Your task to perform on an android device: open wifi settings Image 0: 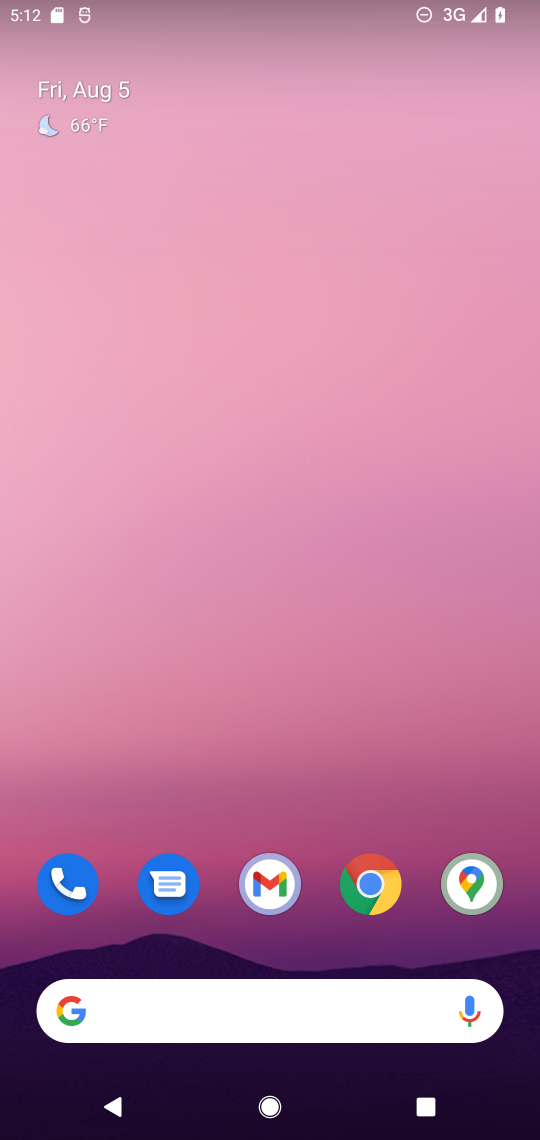
Step 0: drag from (412, 920) to (305, 30)
Your task to perform on an android device: open wifi settings Image 1: 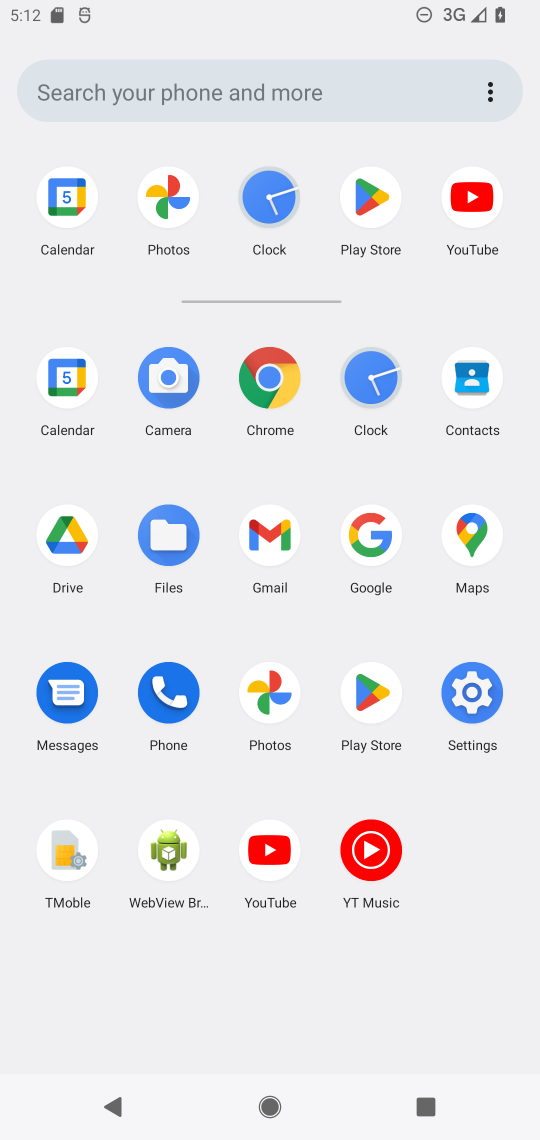
Step 1: click (488, 704)
Your task to perform on an android device: open wifi settings Image 2: 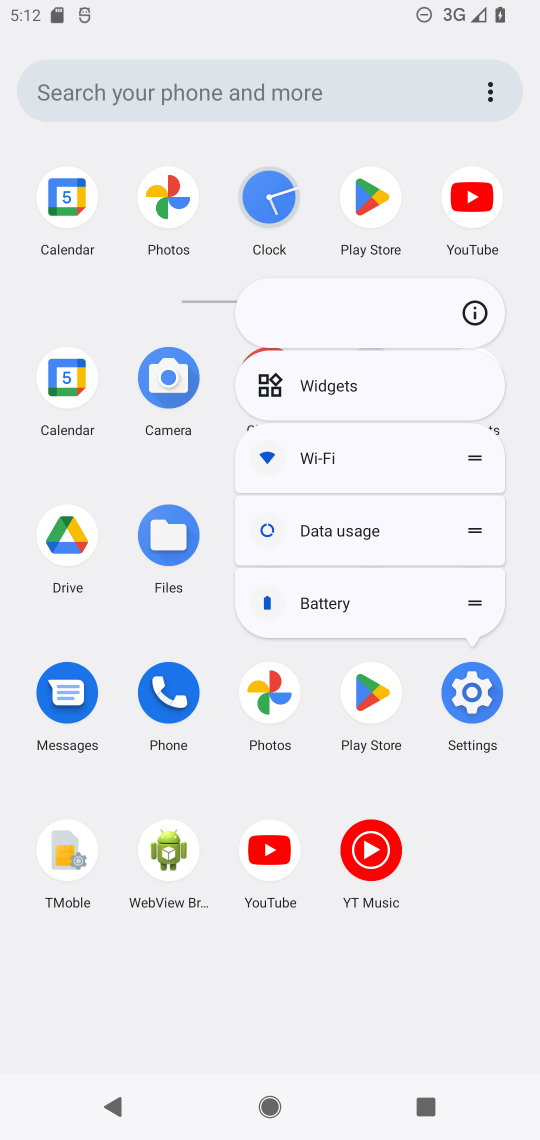
Step 2: click (488, 704)
Your task to perform on an android device: open wifi settings Image 3: 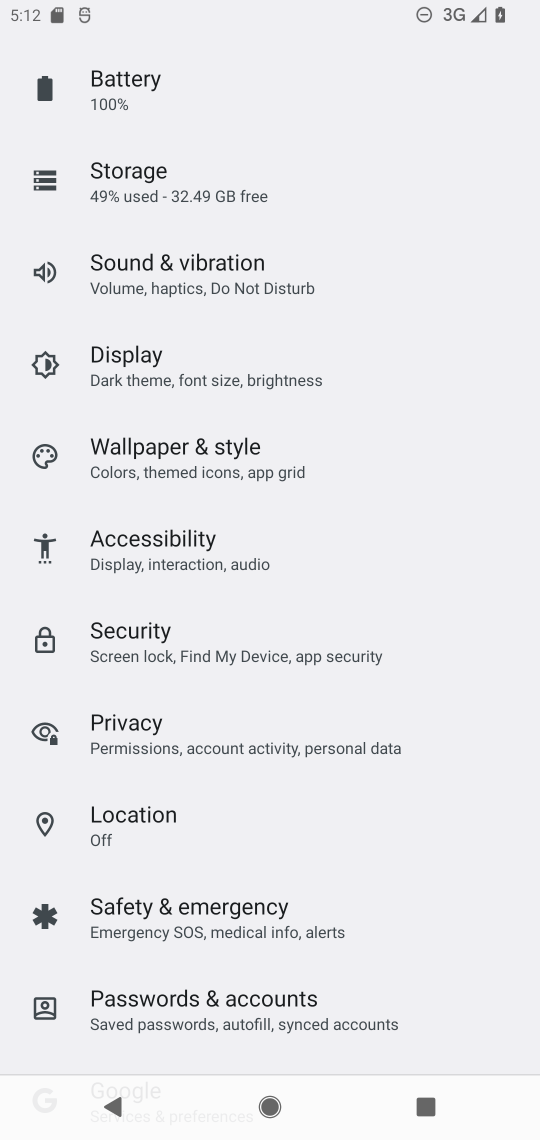
Step 3: drag from (226, 248) to (298, 1078)
Your task to perform on an android device: open wifi settings Image 4: 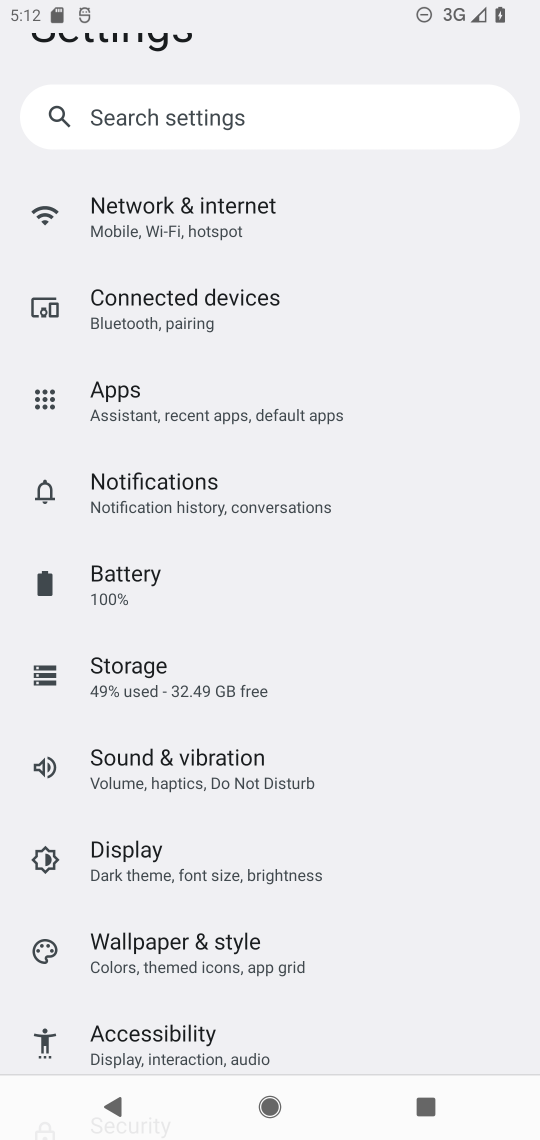
Step 4: drag from (209, 374) to (255, 879)
Your task to perform on an android device: open wifi settings Image 5: 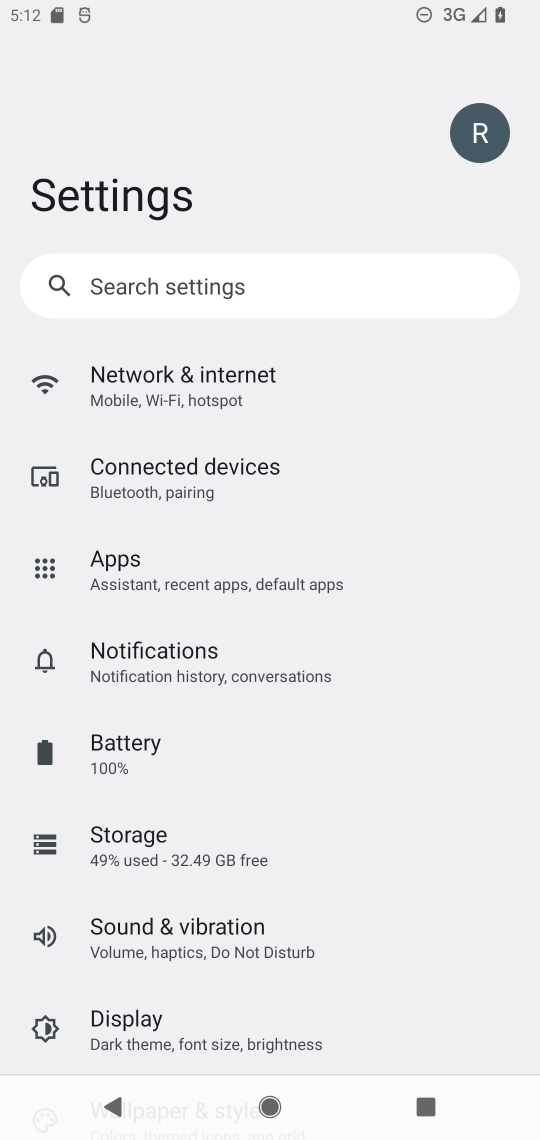
Step 5: click (249, 380)
Your task to perform on an android device: open wifi settings Image 6: 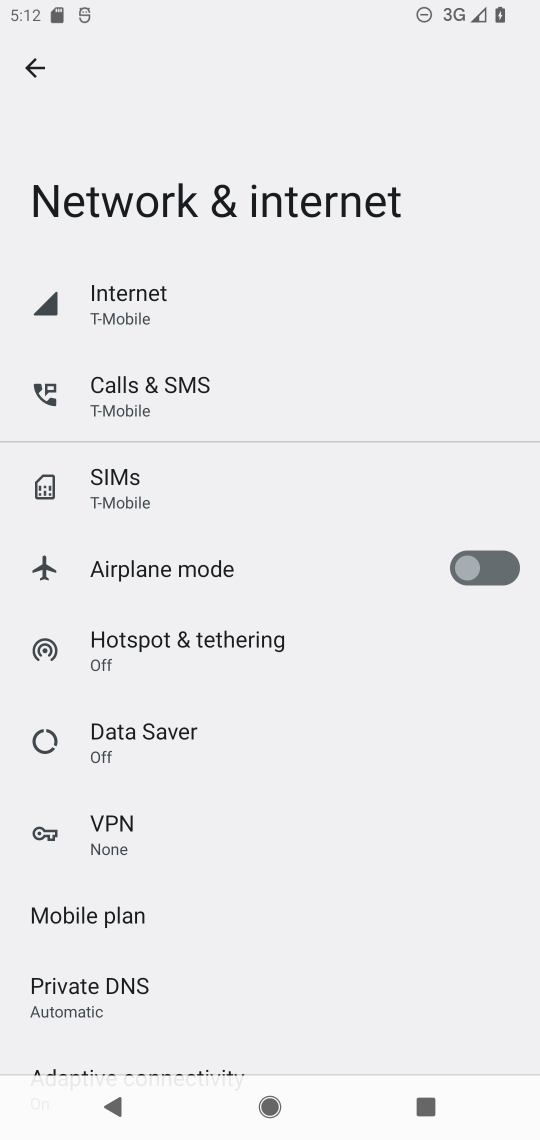
Step 6: task complete